Your task to perform on an android device: Open the map Image 0: 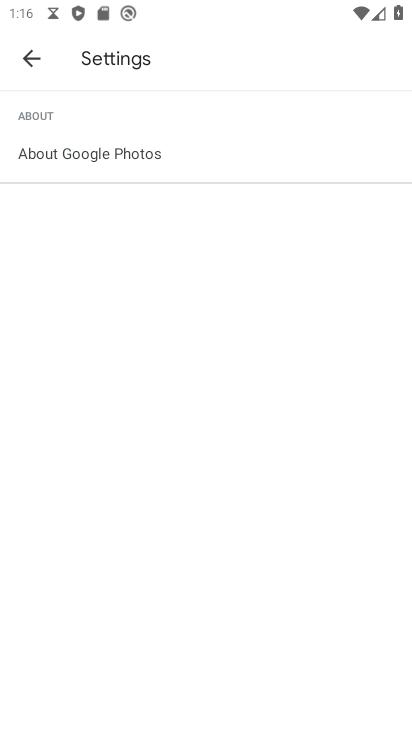
Step 0: press home button
Your task to perform on an android device: Open the map Image 1: 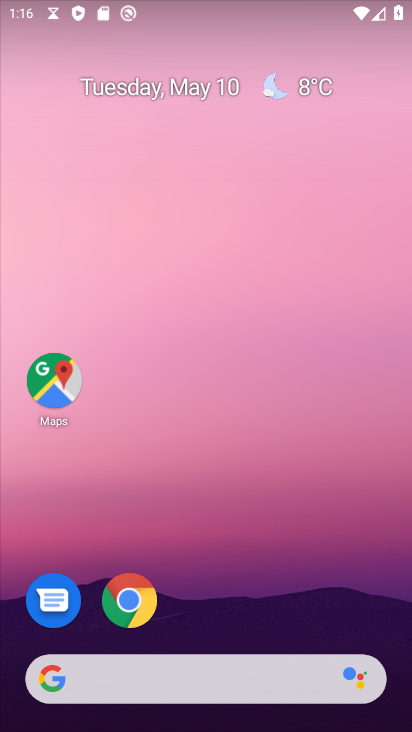
Step 1: click (129, 588)
Your task to perform on an android device: Open the map Image 2: 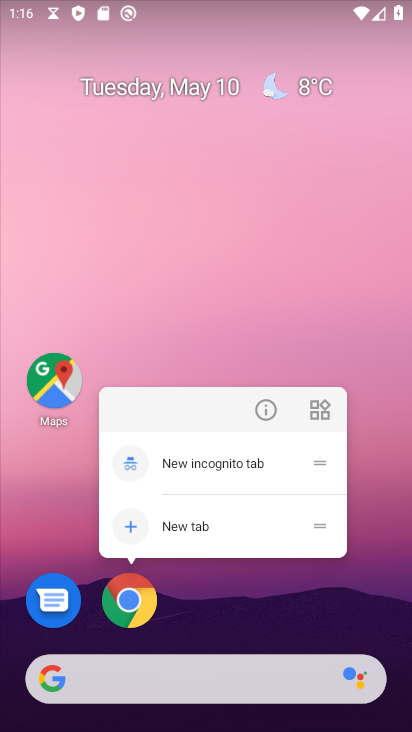
Step 2: click (278, 600)
Your task to perform on an android device: Open the map Image 3: 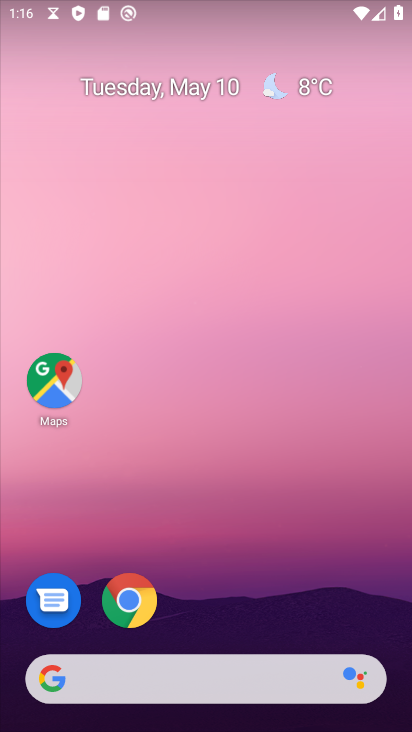
Step 3: click (54, 377)
Your task to perform on an android device: Open the map Image 4: 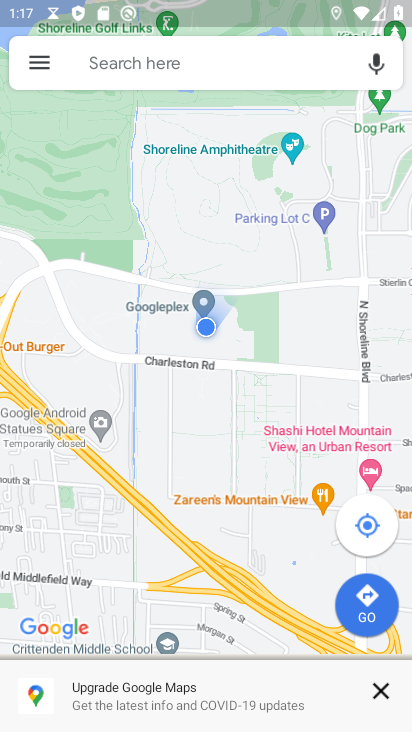
Step 4: task complete